Your task to perform on an android device: Open Amazon Image 0: 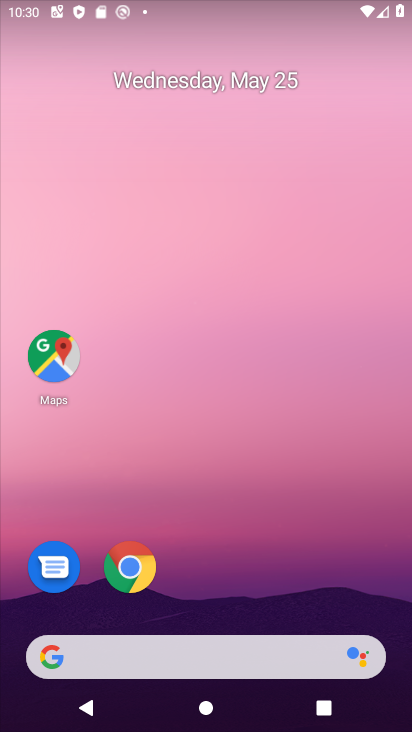
Step 0: drag from (261, 682) to (230, 215)
Your task to perform on an android device: Open Amazon Image 1: 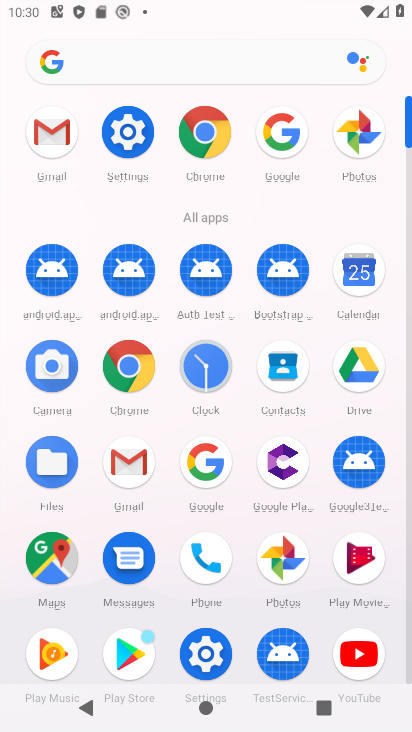
Step 1: drag from (232, 533) to (227, 182)
Your task to perform on an android device: Open Amazon Image 2: 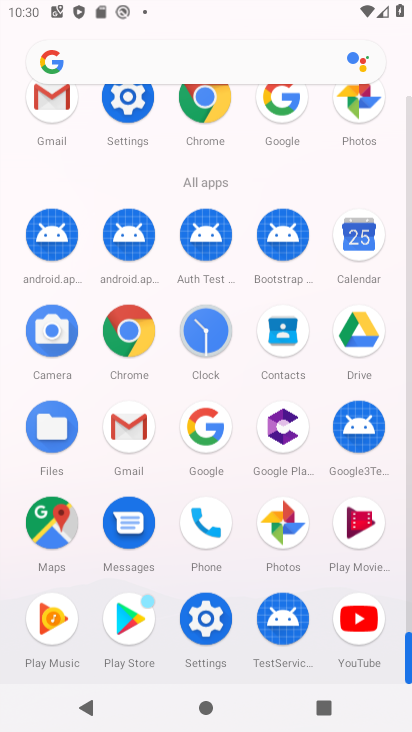
Step 2: drag from (249, 448) to (243, 219)
Your task to perform on an android device: Open Amazon Image 3: 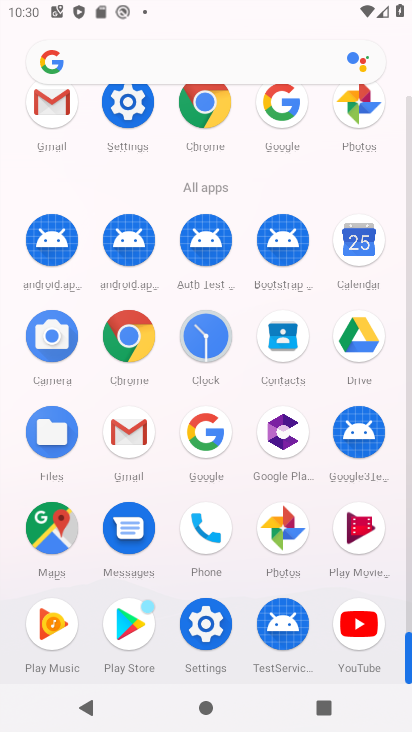
Step 3: click (200, 112)
Your task to perform on an android device: Open Amazon Image 4: 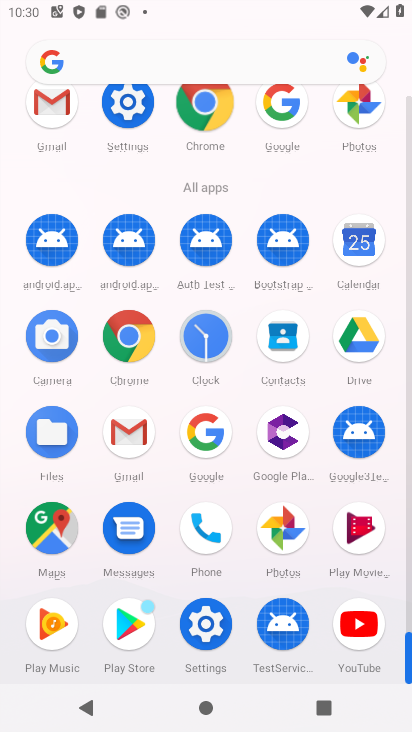
Step 4: click (200, 112)
Your task to perform on an android device: Open Amazon Image 5: 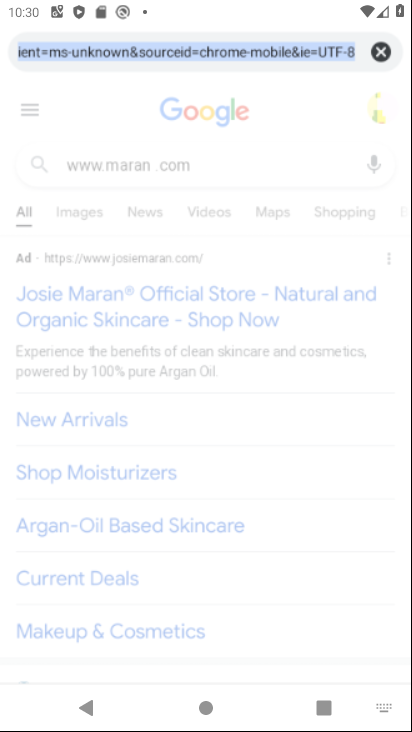
Step 5: click (200, 112)
Your task to perform on an android device: Open Amazon Image 6: 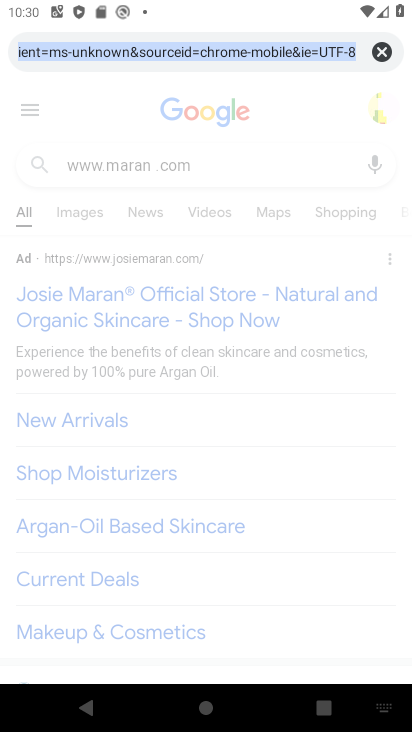
Step 6: click (377, 38)
Your task to perform on an android device: Open Amazon Image 7: 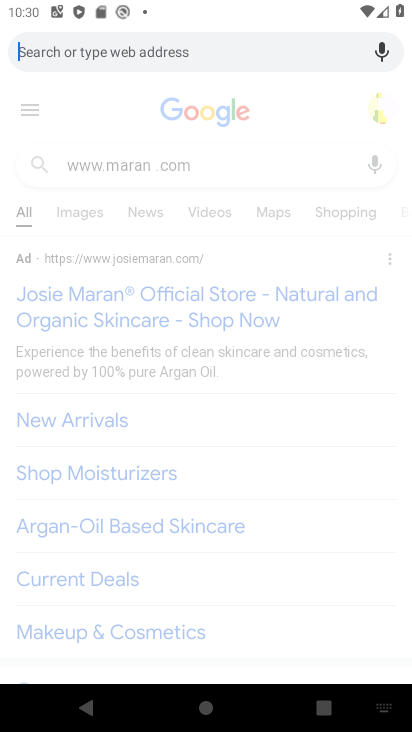
Step 7: type "www.amazon .com"
Your task to perform on an android device: Open Amazon Image 8: 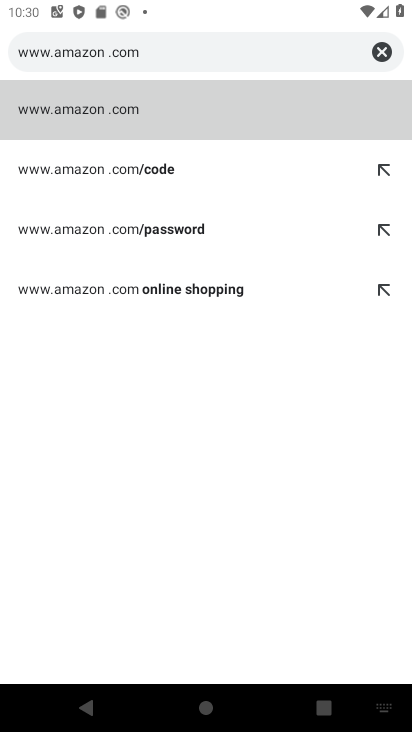
Step 8: click (69, 122)
Your task to perform on an android device: Open Amazon Image 9: 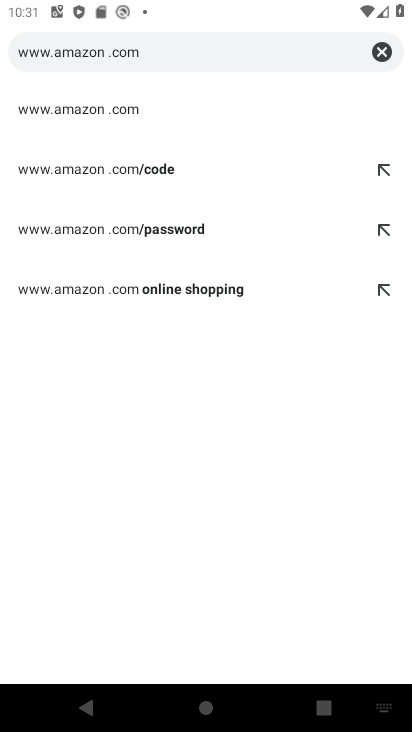
Step 9: click (86, 107)
Your task to perform on an android device: Open Amazon Image 10: 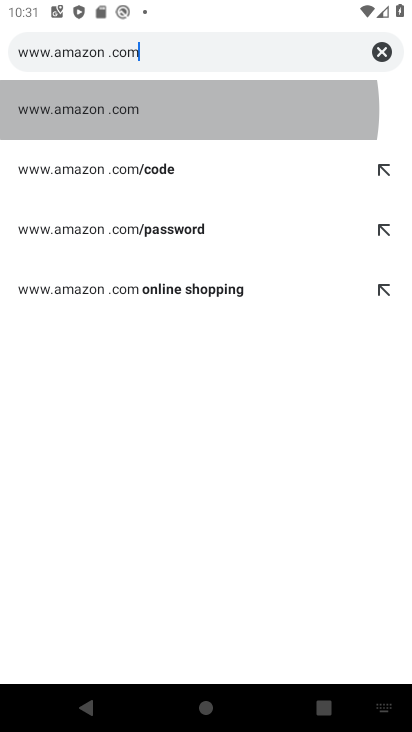
Step 10: click (86, 107)
Your task to perform on an android device: Open Amazon Image 11: 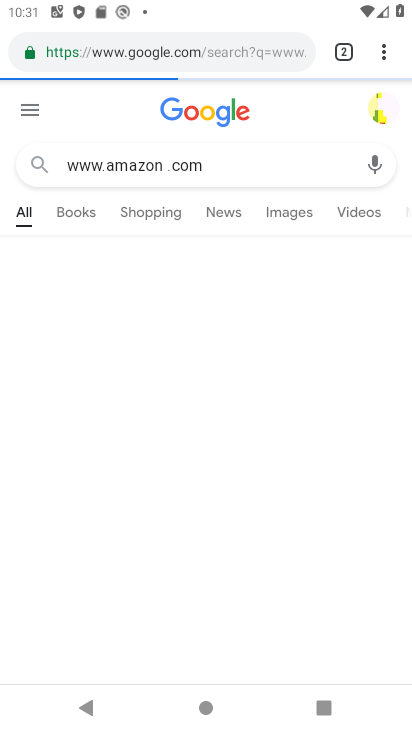
Step 11: click (86, 107)
Your task to perform on an android device: Open Amazon Image 12: 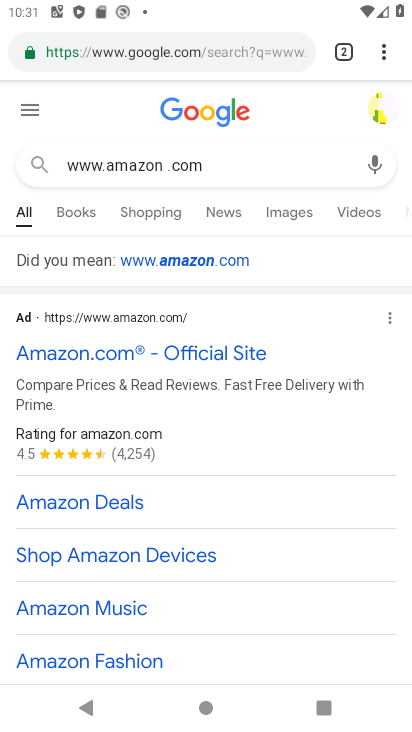
Step 12: task complete